Your task to perform on an android device: Go to wifi settings Image 0: 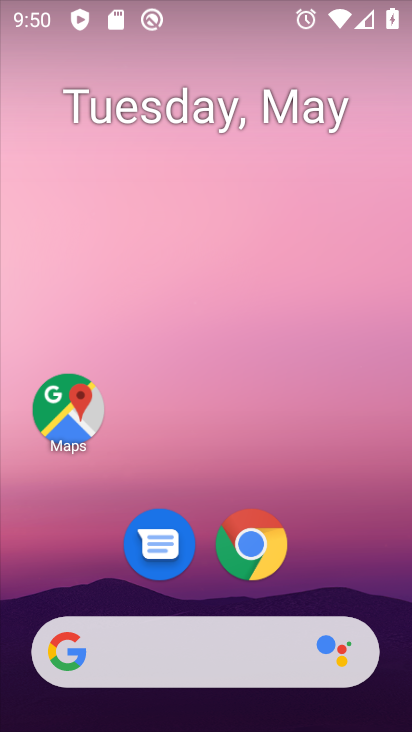
Step 0: drag from (359, 552) to (368, 219)
Your task to perform on an android device: Go to wifi settings Image 1: 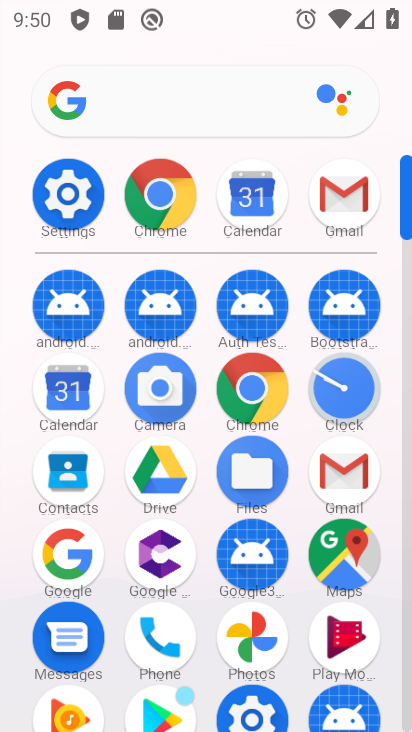
Step 1: click (80, 204)
Your task to perform on an android device: Go to wifi settings Image 2: 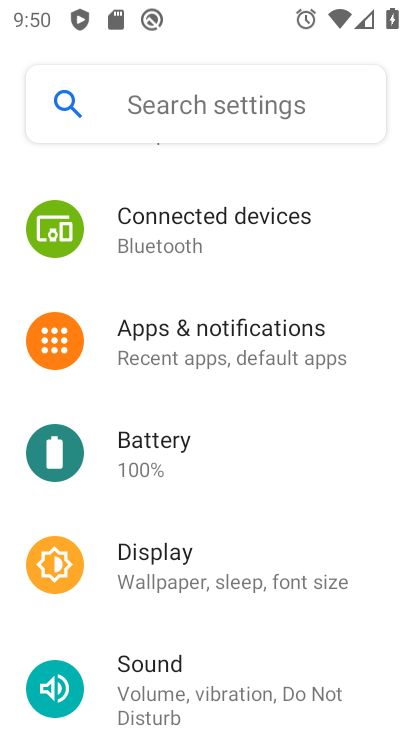
Step 2: drag from (273, 332) to (257, 614)
Your task to perform on an android device: Go to wifi settings Image 3: 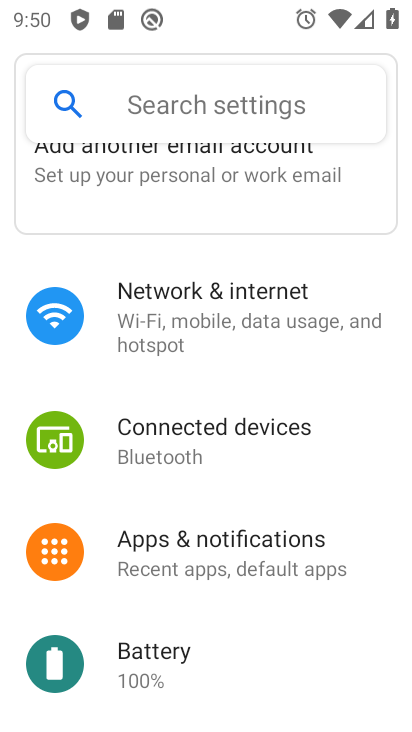
Step 3: click (260, 318)
Your task to perform on an android device: Go to wifi settings Image 4: 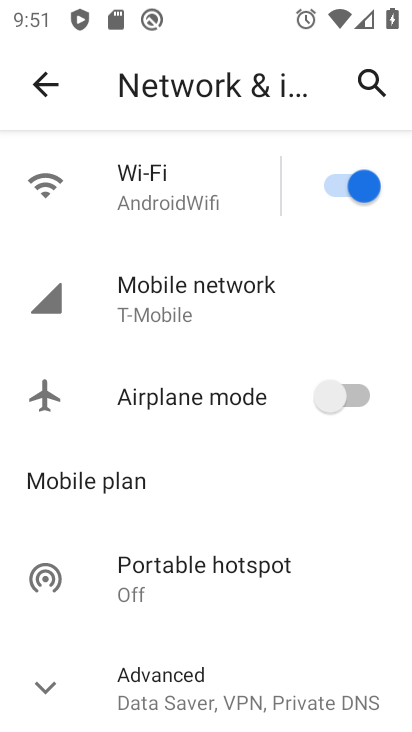
Step 4: click (231, 188)
Your task to perform on an android device: Go to wifi settings Image 5: 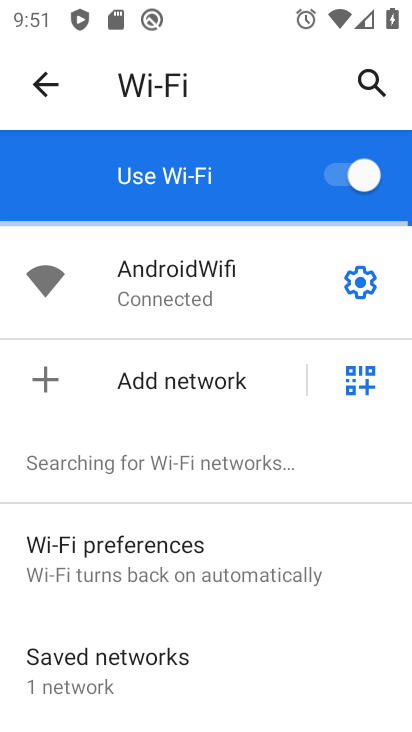
Step 5: click (359, 287)
Your task to perform on an android device: Go to wifi settings Image 6: 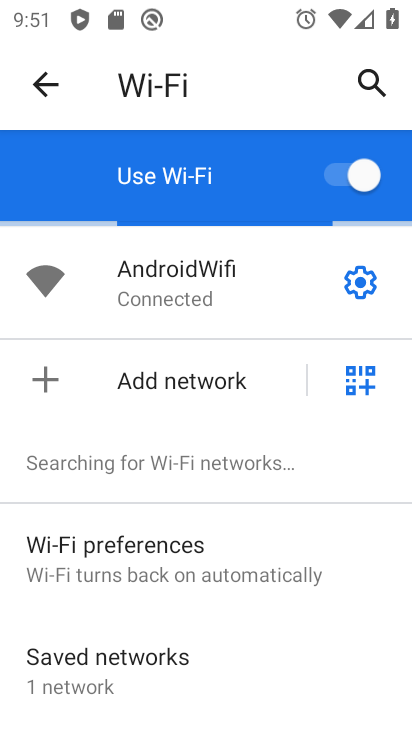
Step 6: task complete